Your task to perform on an android device: empty trash in the gmail app Image 0: 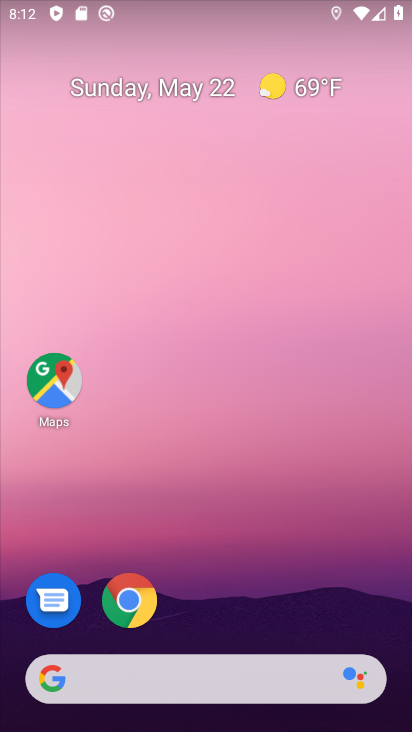
Step 0: drag from (233, 535) to (255, 83)
Your task to perform on an android device: empty trash in the gmail app Image 1: 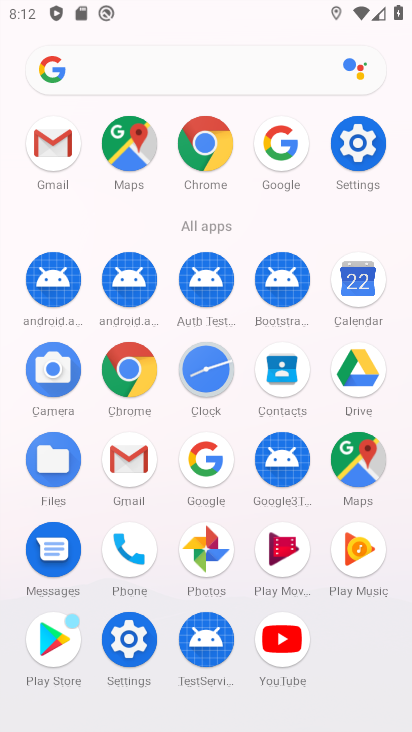
Step 1: click (132, 461)
Your task to perform on an android device: empty trash in the gmail app Image 2: 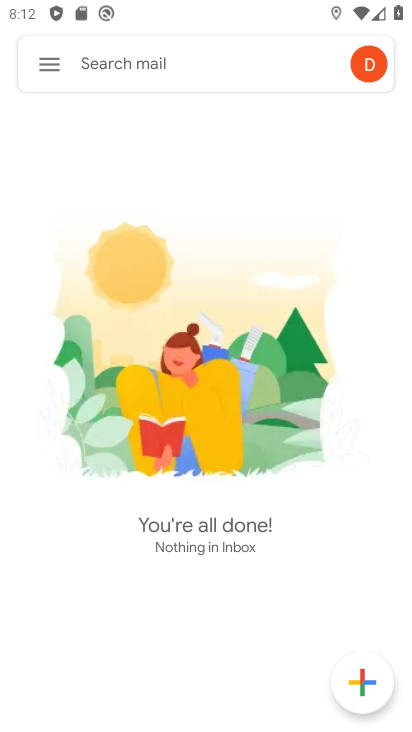
Step 2: click (32, 60)
Your task to perform on an android device: empty trash in the gmail app Image 3: 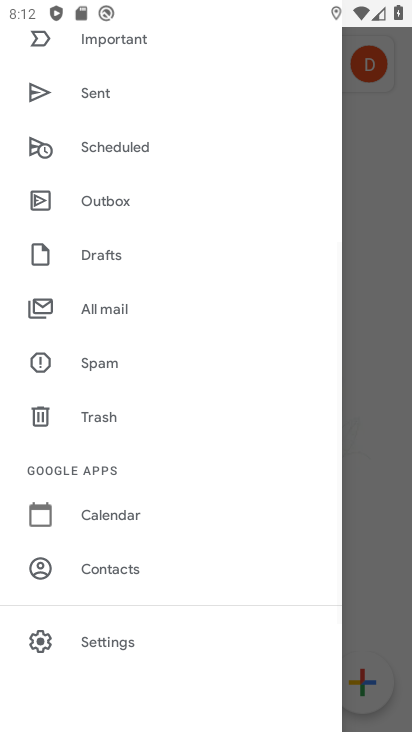
Step 3: click (96, 418)
Your task to perform on an android device: empty trash in the gmail app Image 4: 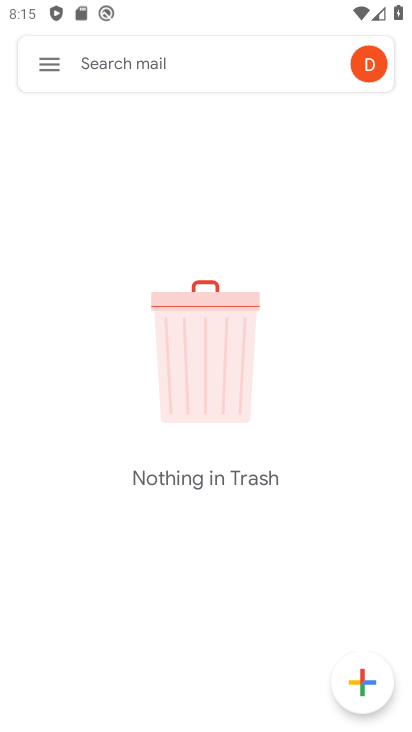
Step 4: task complete